Your task to perform on an android device: Go to sound settings Image 0: 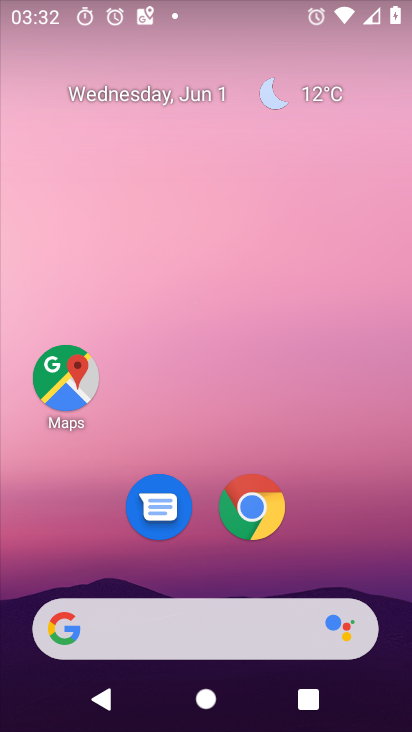
Step 0: drag from (331, 563) to (300, 11)
Your task to perform on an android device: Go to sound settings Image 1: 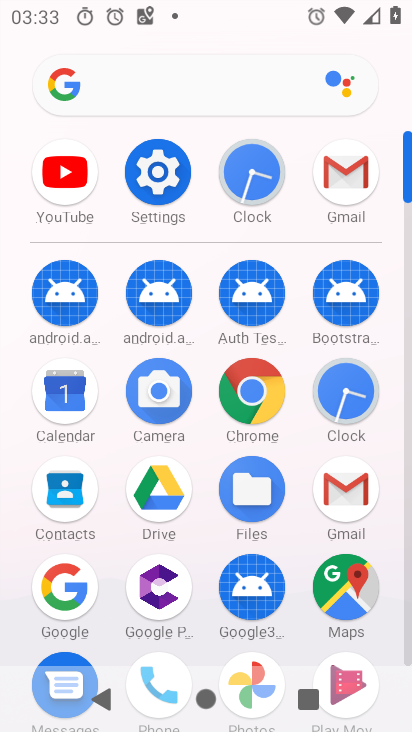
Step 1: click (153, 174)
Your task to perform on an android device: Go to sound settings Image 2: 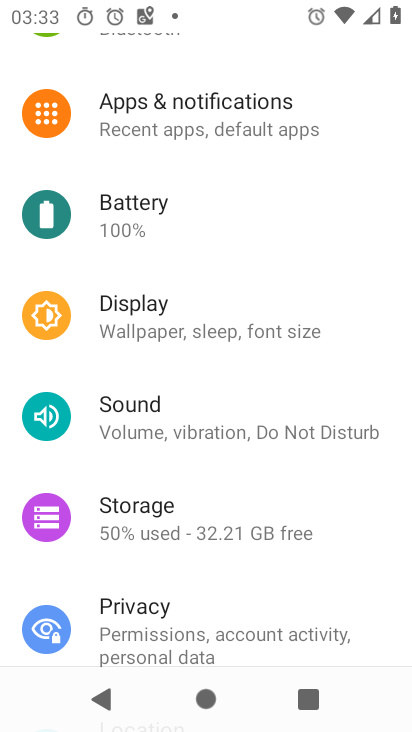
Step 2: click (132, 420)
Your task to perform on an android device: Go to sound settings Image 3: 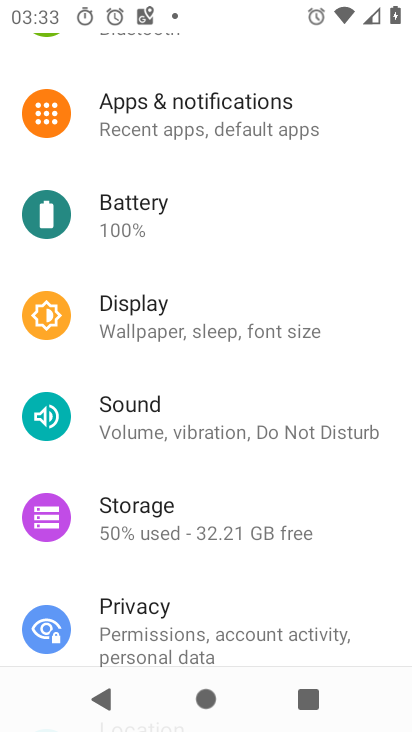
Step 3: click (155, 436)
Your task to perform on an android device: Go to sound settings Image 4: 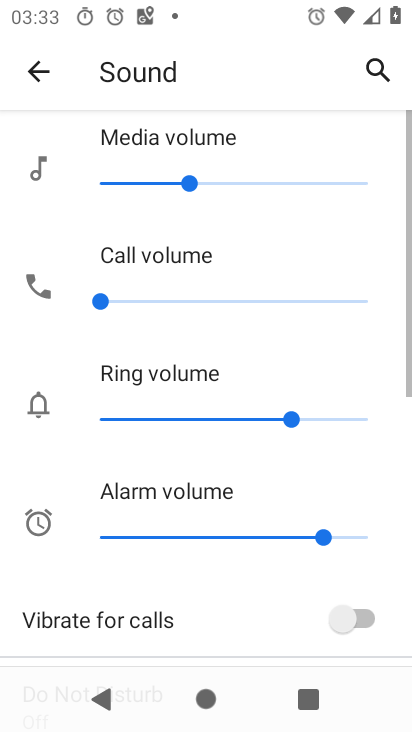
Step 4: task complete